Your task to perform on an android device: add a contact Image 0: 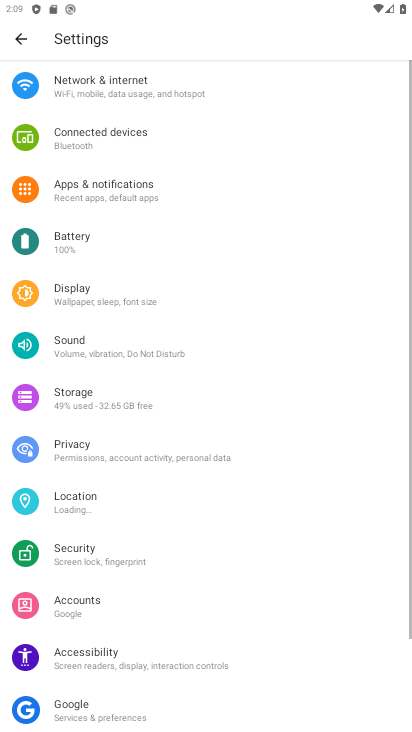
Step 0: press home button
Your task to perform on an android device: add a contact Image 1: 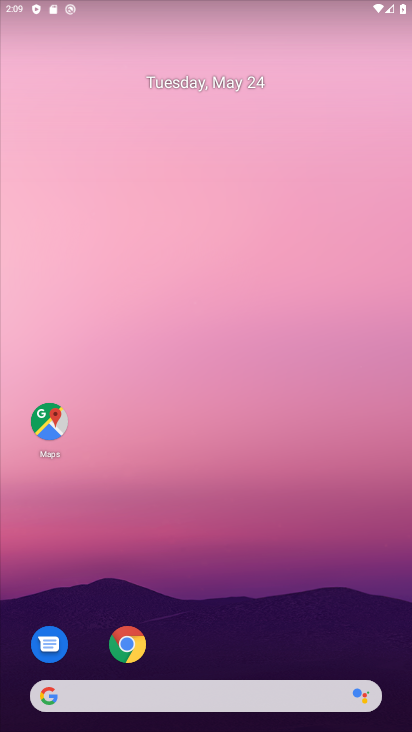
Step 1: drag from (205, 629) to (228, 64)
Your task to perform on an android device: add a contact Image 2: 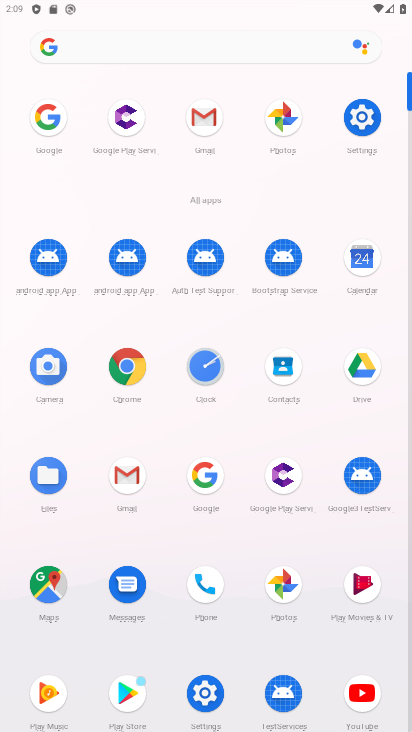
Step 2: click (281, 367)
Your task to perform on an android device: add a contact Image 3: 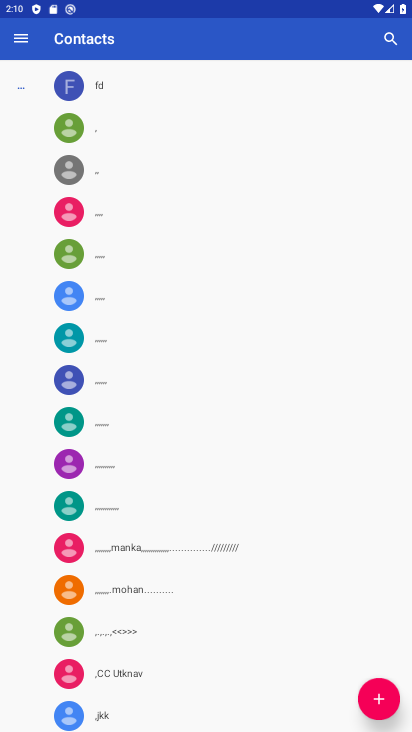
Step 3: click (374, 697)
Your task to perform on an android device: add a contact Image 4: 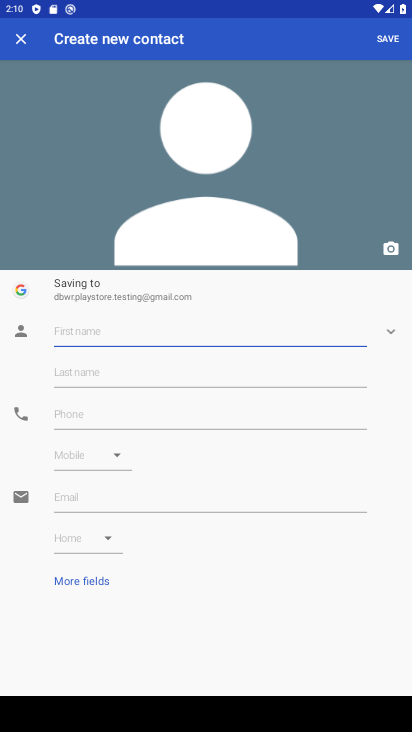
Step 4: type "yyyhh"
Your task to perform on an android device: add a contact Image 5: 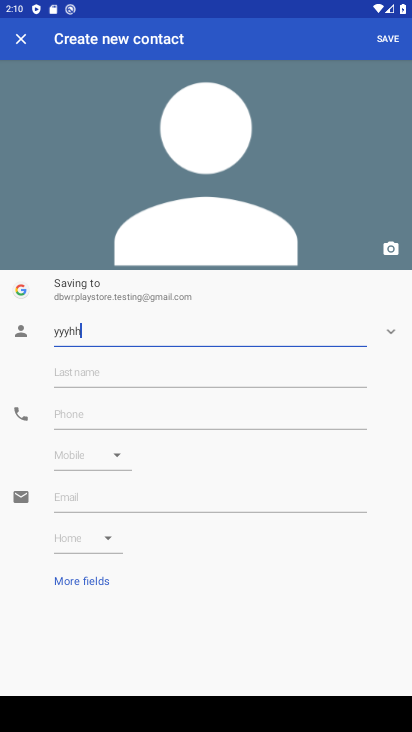
Step 5: click (386, 43)
Your task to perform on an android device: add a contact Image 6: 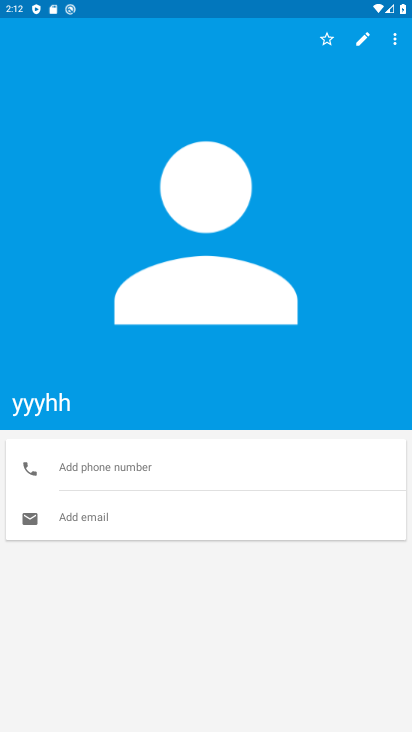
Step 6: task complete